Your task to perform on an android device: Open Google Chrome Image 0: 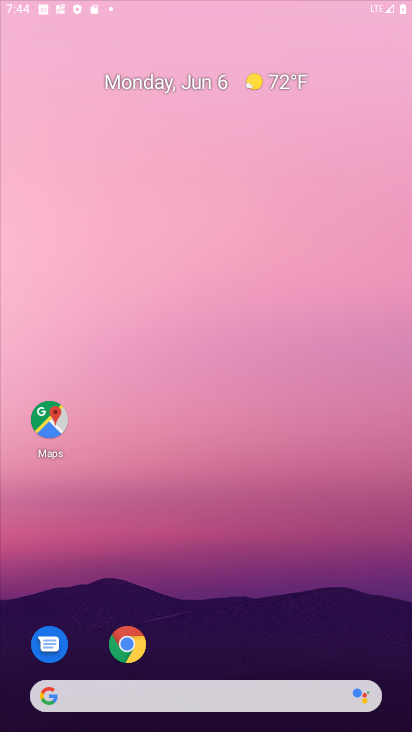
Step 0: press home button
Your task to perform on an android device: Open Google Chrome Image 1: 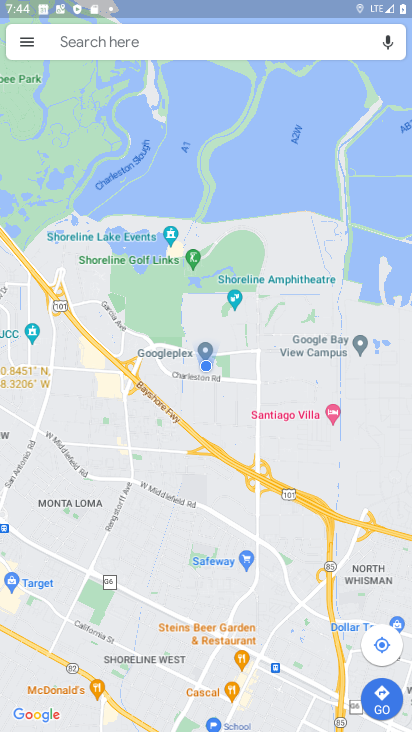
Step 1: drag from (243, 707) to (150, 109)
Your task to perform on an android device: Open Google Chrome Image 2: 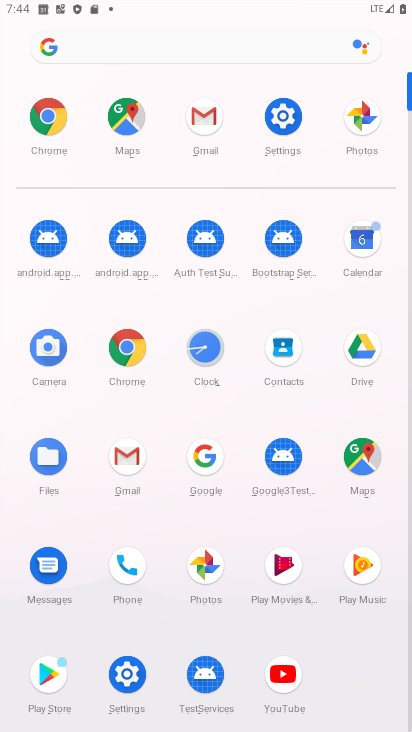
Step 2: click (23, 126)
Your task to perform on an android device: Open Google Chrome Image 3: 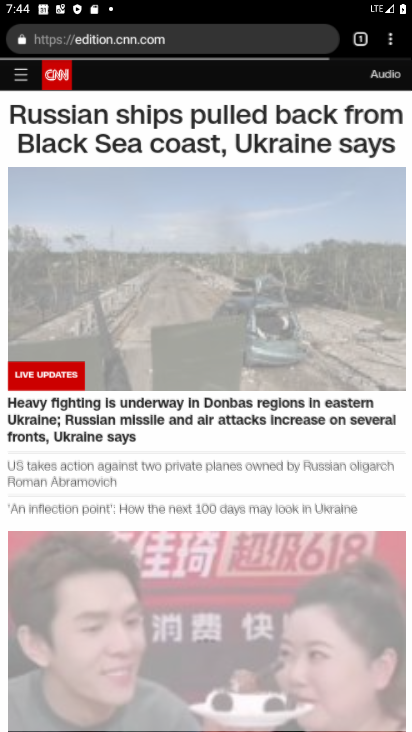
Step 3: click (373, 49)
Your task to perform on an android device: Open Google Chrome Image 4: 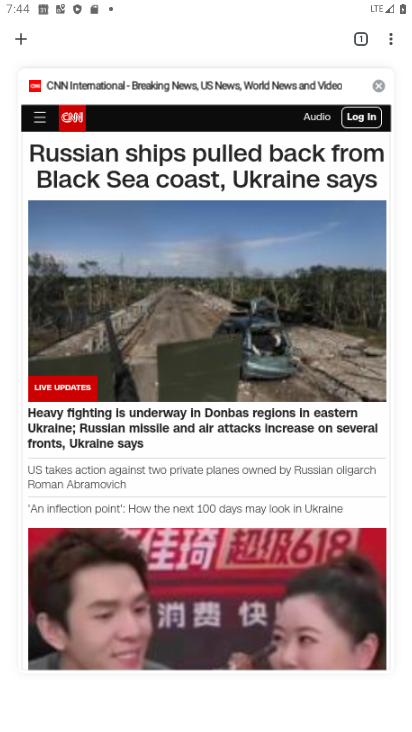
Step 4: click (24, 52)
Your task to perform on an android device: Open Google Chrome Image 5: 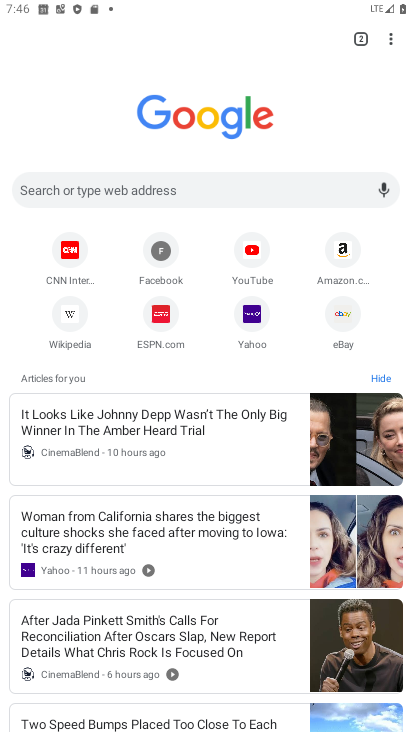
Step 5: task complete